Your task to perform on an android device: Open maps Image 0: 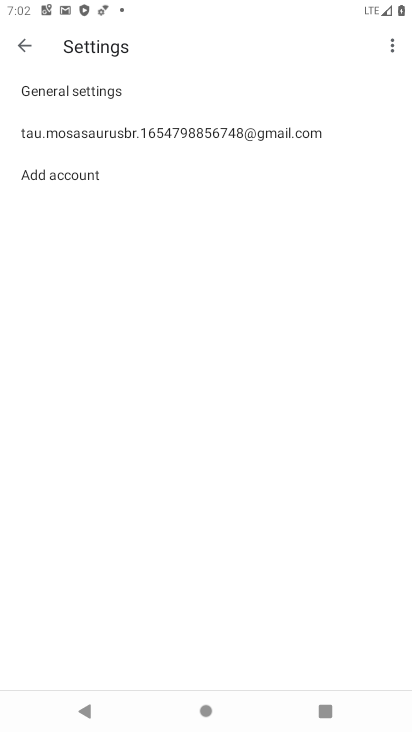
Step 0: press home button
Your task to perform on an android device: Open maps Image 1: 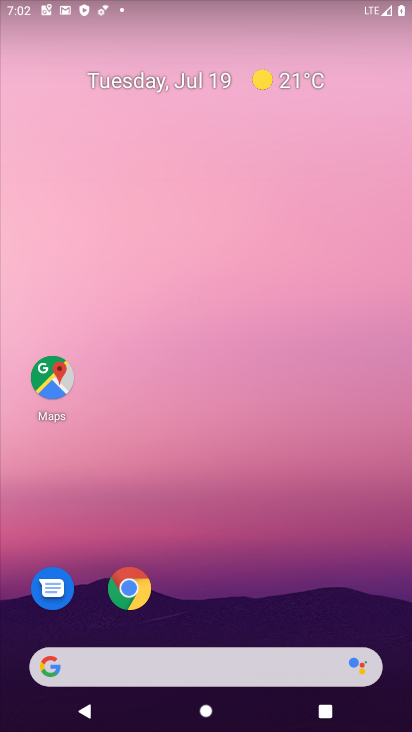
Step 1: drag from (266, 584) to (248, 117)
Your task to perform on an android device: Open maps Image 2: 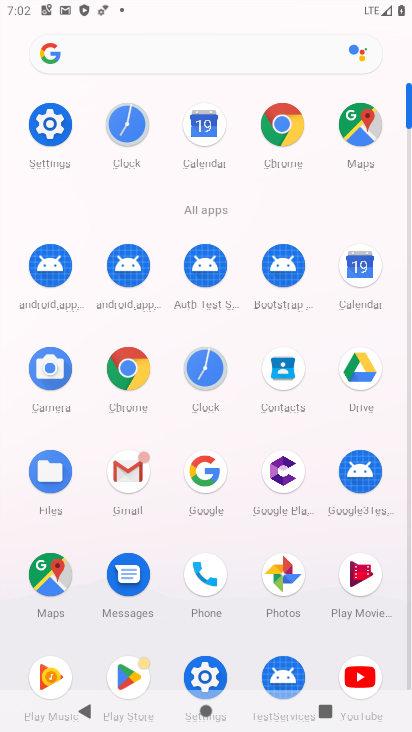
Step 2: click (42, 570)
Your task to perform on an android device: Open maps Image 3: 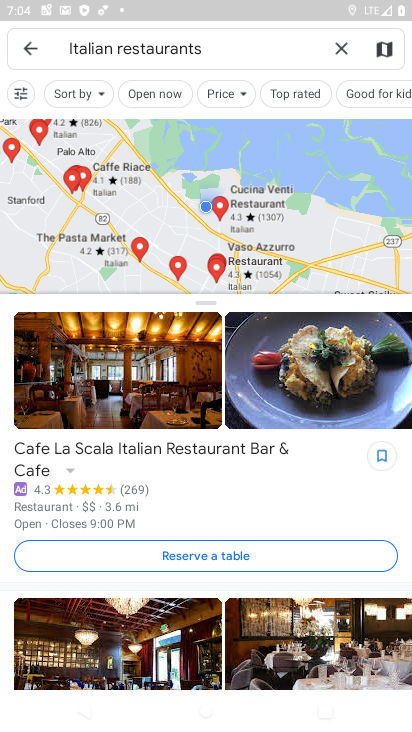
Step 3: task complete